Your task to perform on an android device: open app "Spotify" (install if not already installed) and go to login screen Image 0: 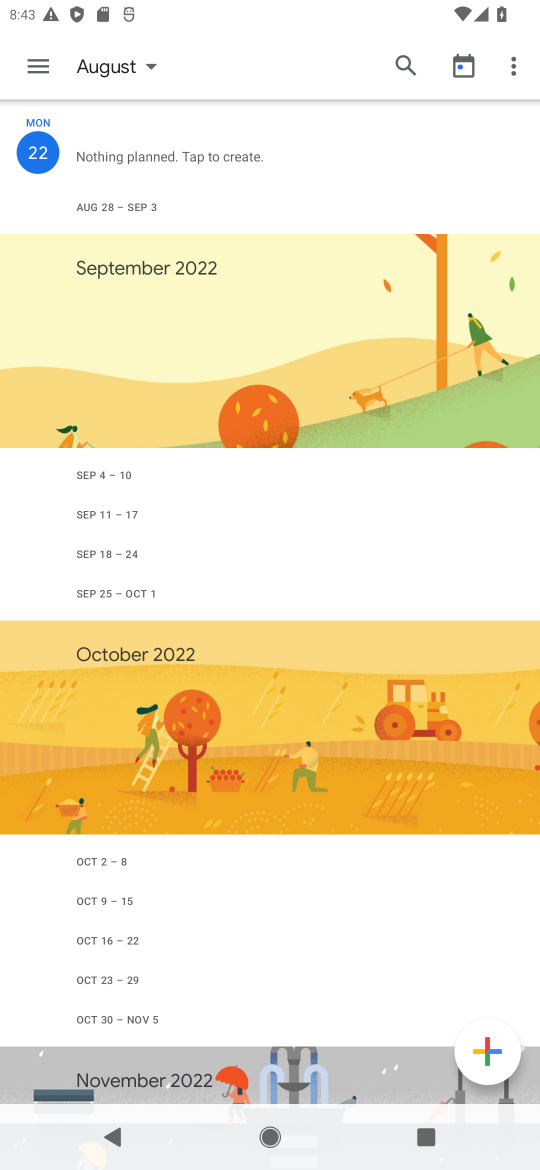
Step 0: press home button
Your task to perform on an android device: open app "Spotify" (install if not already installed) and go to login screen Image 1: 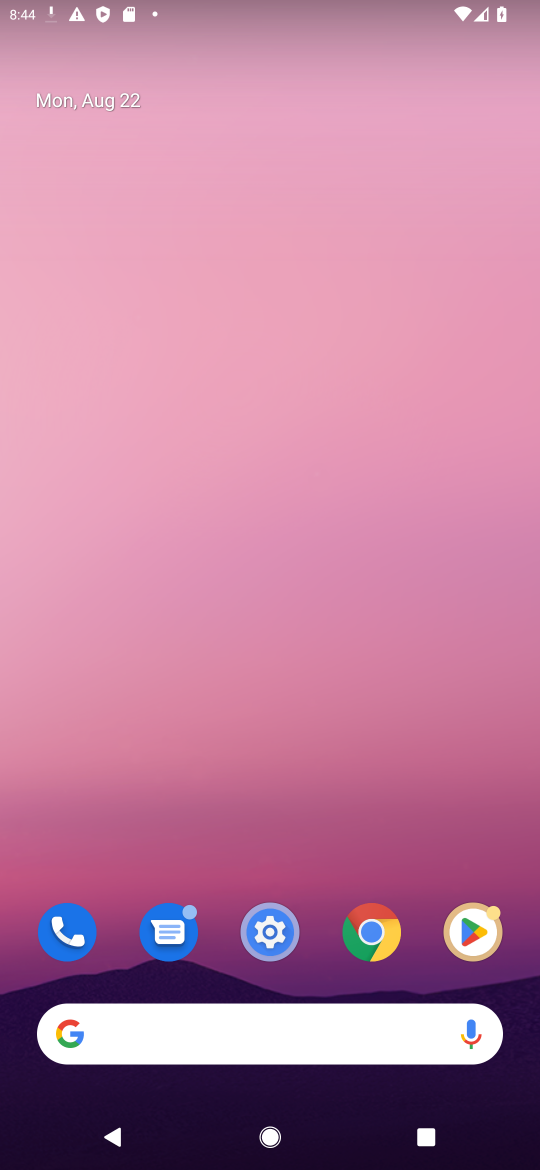
Step 1: drag from (334, 973) to (306, 81)
Your task to perform on an android device: open app "Spotify" (install if not already installed) and go to login screen Image 2: 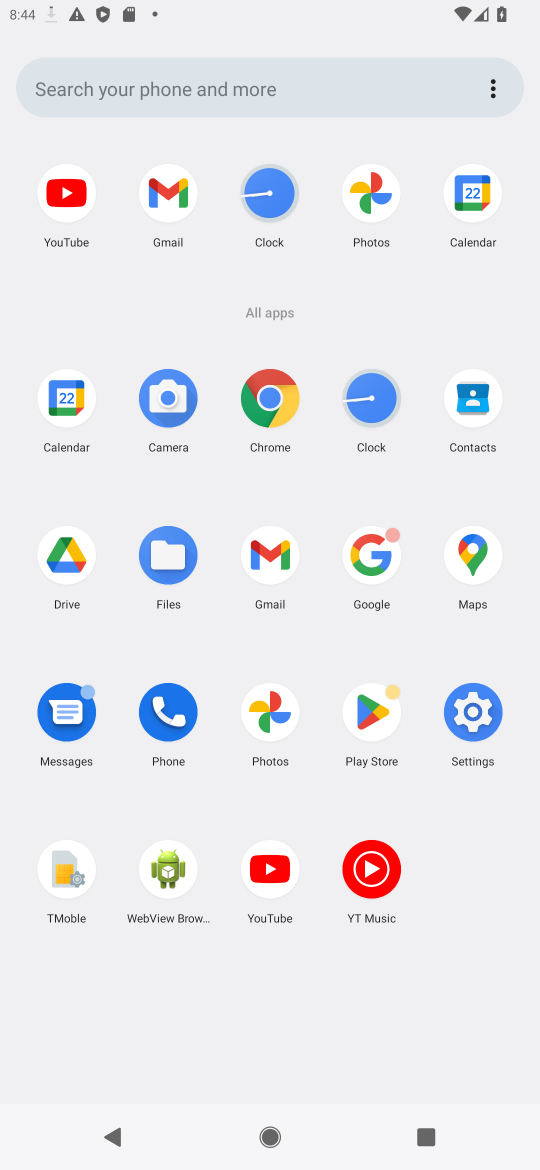
Step 2: click (358, 713)
Your task to perform on an android device: open app "Spotify" (install if not already installed) and go to login screen Image 3: 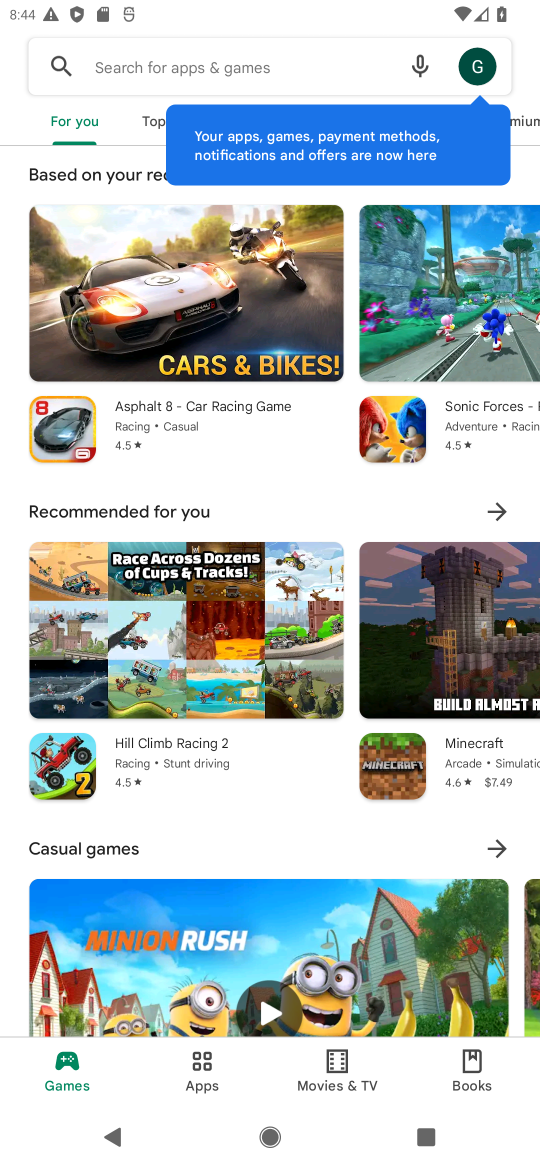
Step 3: click (142, 77)
Your task to perform on an android device: open app "Spotify" (install if not already installed) and go to login screen Image 4: 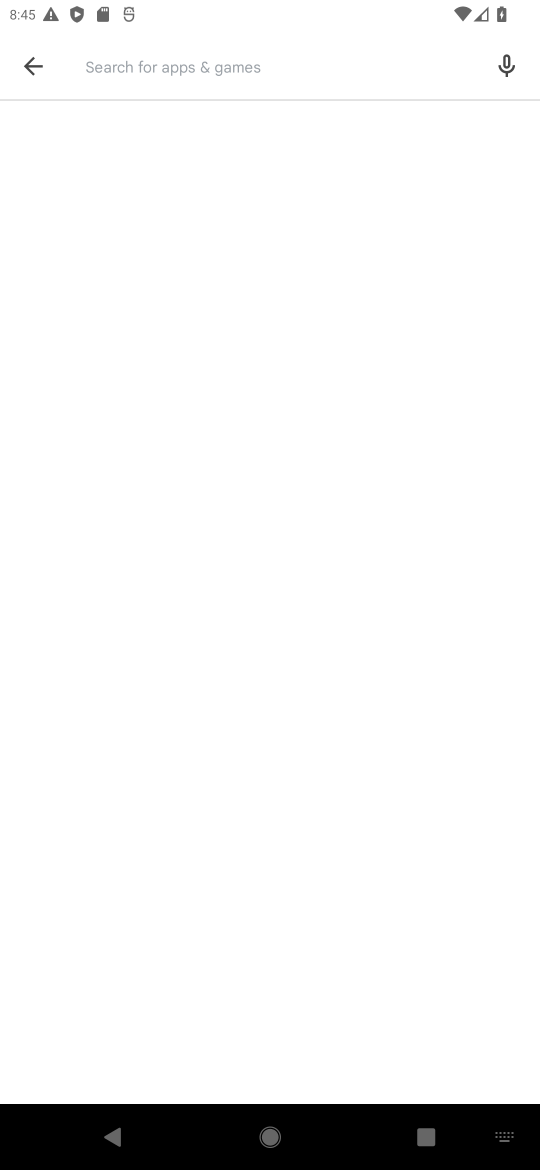
Step 4: type "spotify"
Your task to perform on an android device: open app "Spotify" (install if not already installed) and go to login screen Image 5: 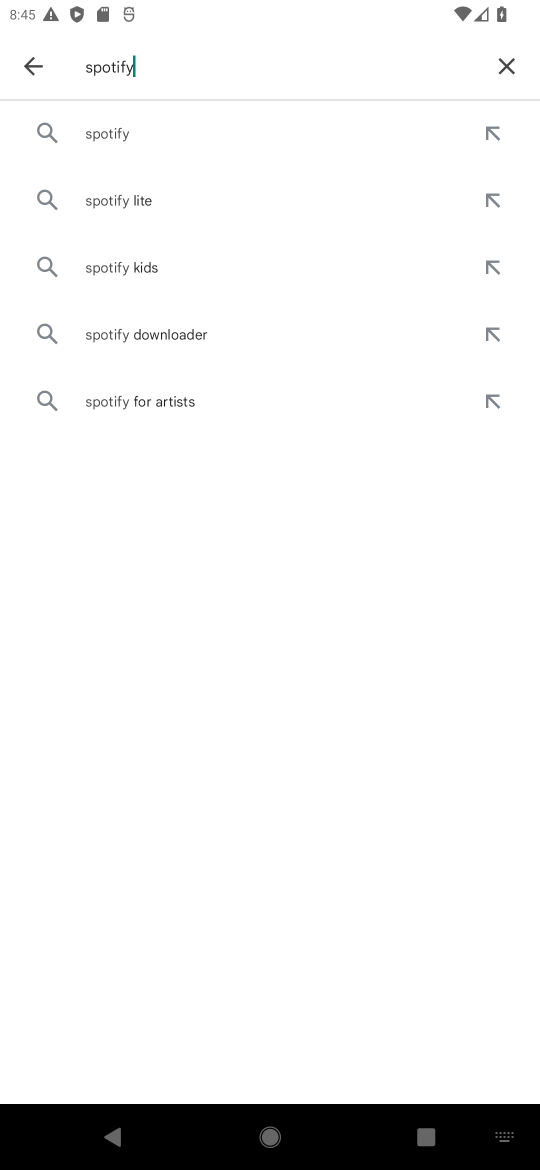
Step 5: click (114, 135)
Your task to perform on an android device: open app "Spotify" (install if not already installed) and go to login screen Image 6: 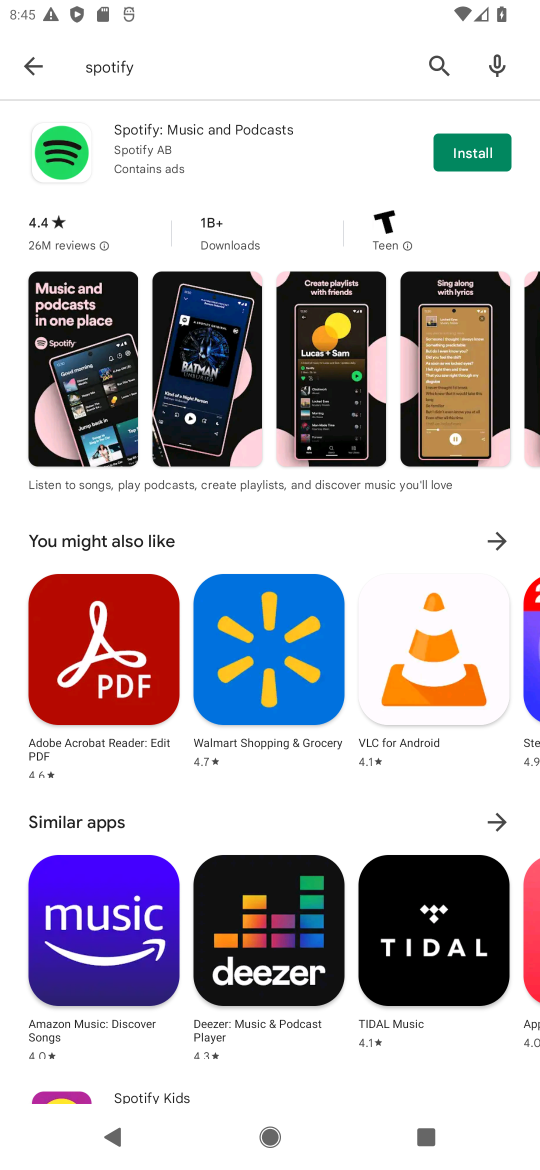
Step 6: click (447, 153)
Your task to perform on an android device: open app "Spotify" (install if not already installed) and go to login screen Image 7: 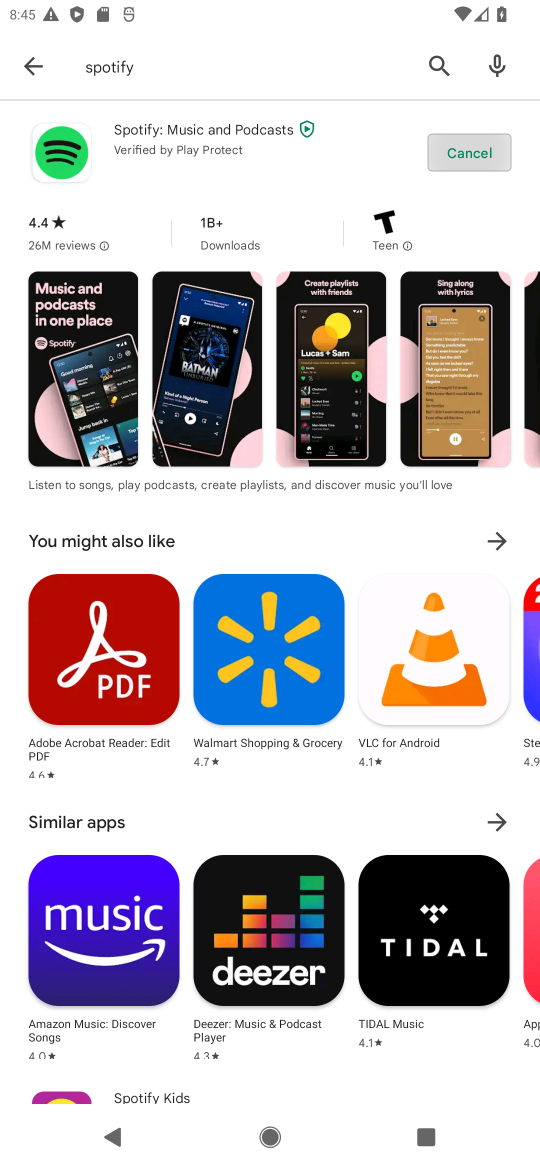
Step 7: task complete